Your task to perform on an android device: Add beats solo 3 to the cart on costco, then select checkout. Image 0: 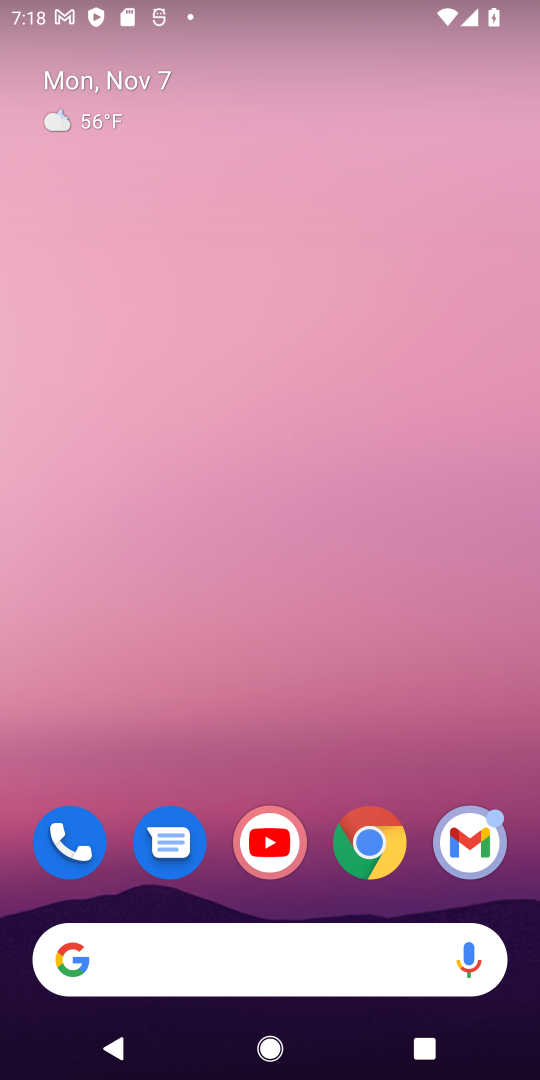
Step 0: click (379, 835)
Your task to perform on an android device: Add beats solo 3 to the cart on costco, then select checkout. Image 1: 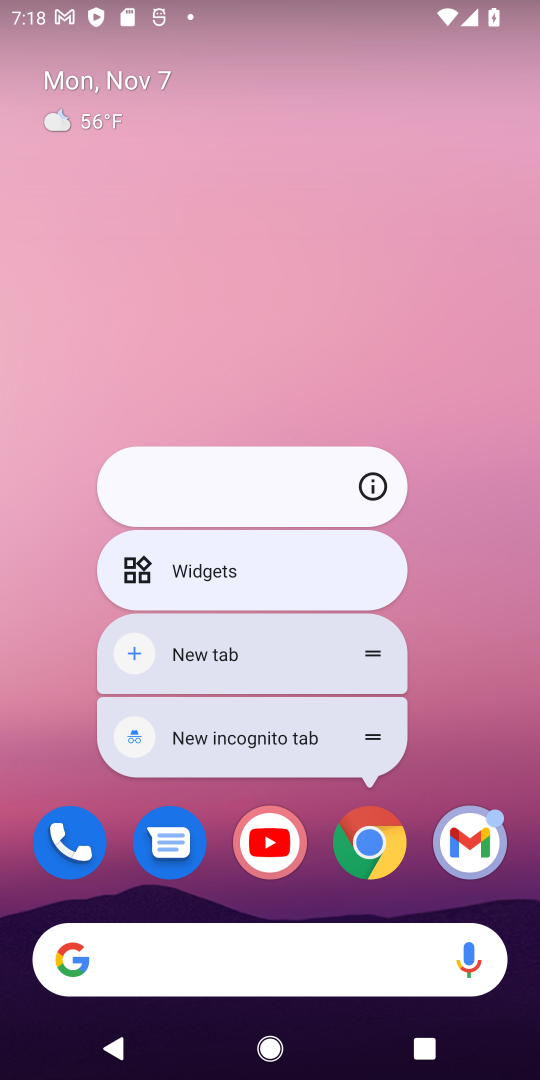
Step 1: click (375, 841)
Your task to perform on an android device: Add beats solo 3 to the cart on costco, then select checkout. Image 2: 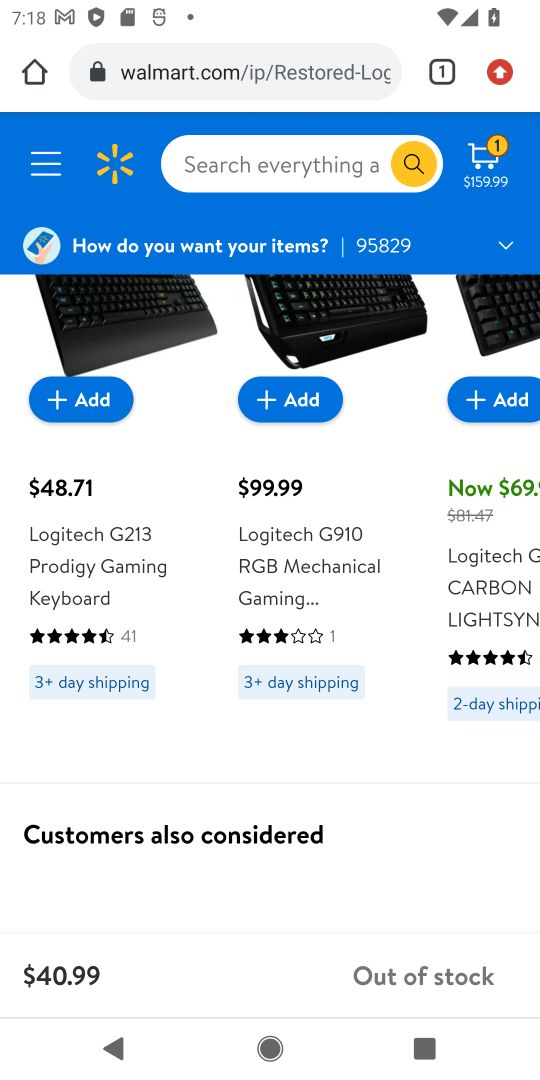
Step 2: click (223, 75)
Your task to perform on an android device: Add beats solo 3 to the cart on costco, then select checkout. Image 3: 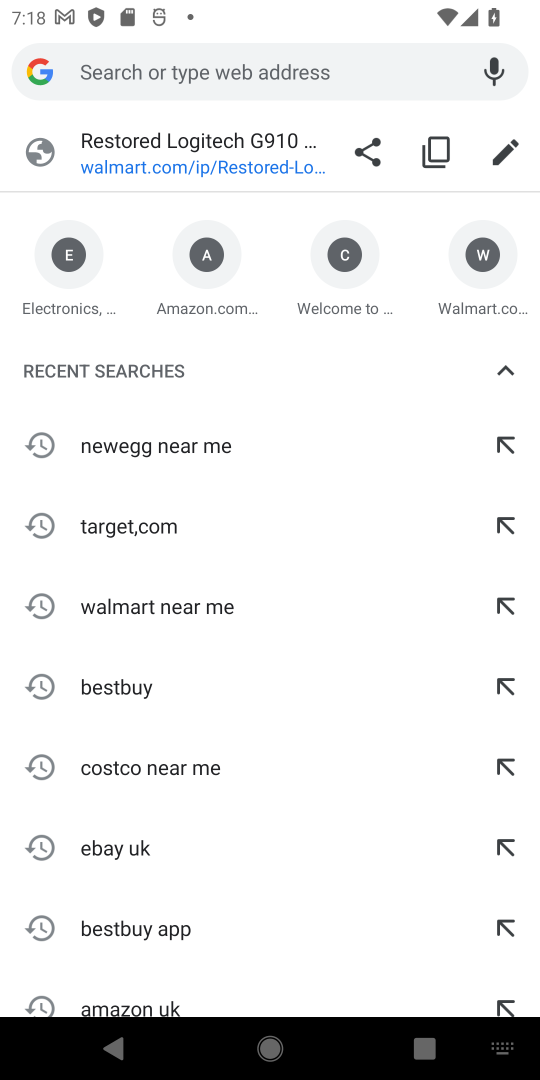
Step 3: type "costco"
Your task to perform on an android device: Add beats solo 3 to the cart on costco, then select checkout. Image 4: 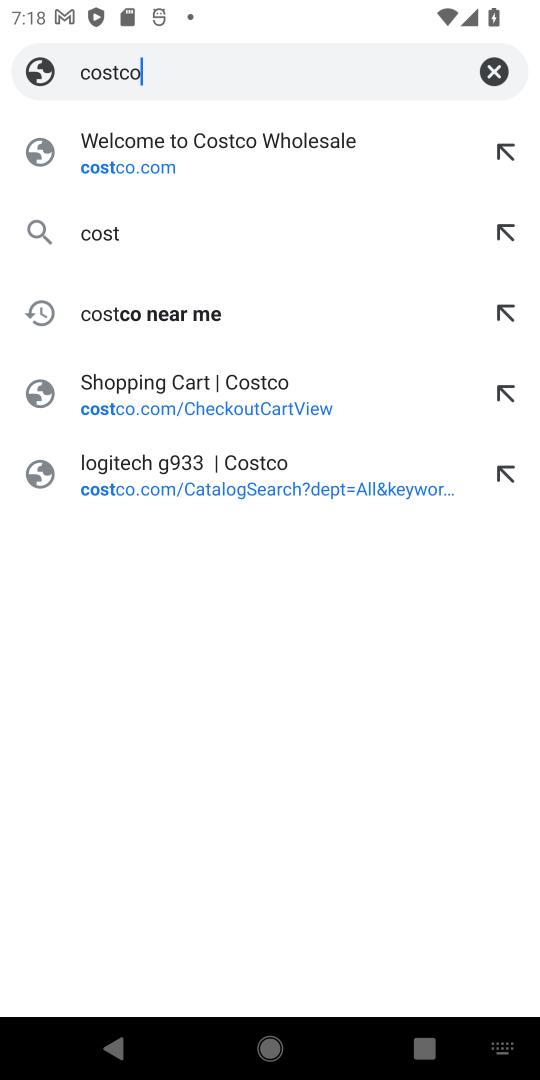
Step 4: press enter
Your task to perform on an android device: Add beats solo 3 to the cart on costco, then select checkout. Image 5: 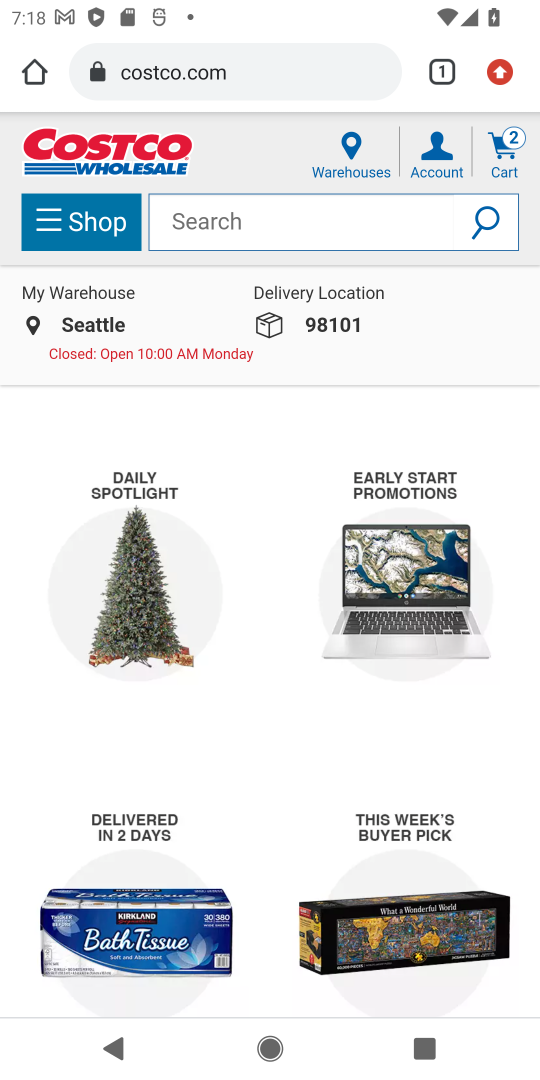
Step 5: click (278, 217)
Your task to perform on an android device: Add beats solo 3 to the cart on costco, then select checkout. Image 6: 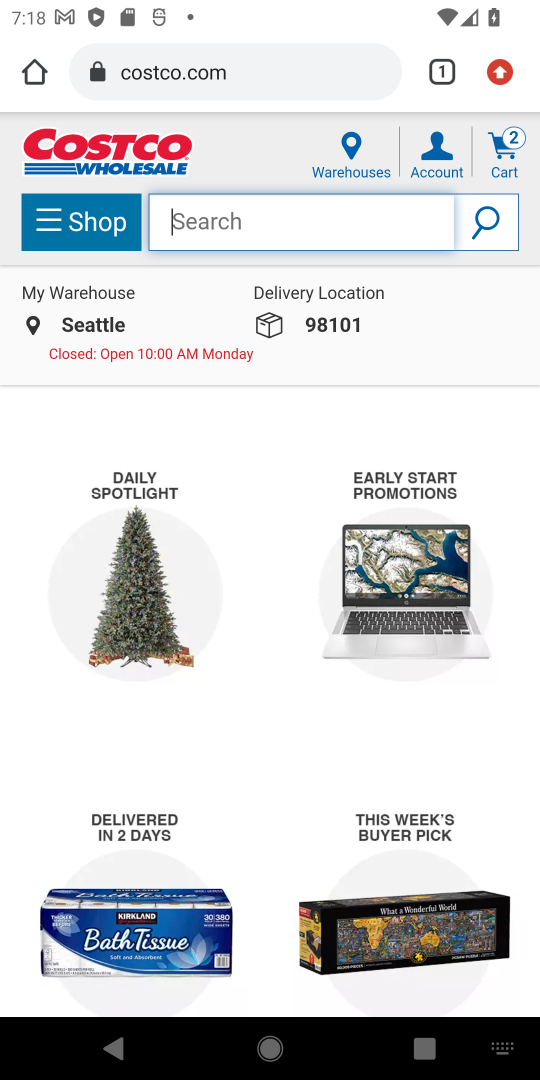
Step 6: type "beats solo 3"
Your task to perform on an android device: Add beats solo 3 to the cart on costco, then select checkout. Image 7: 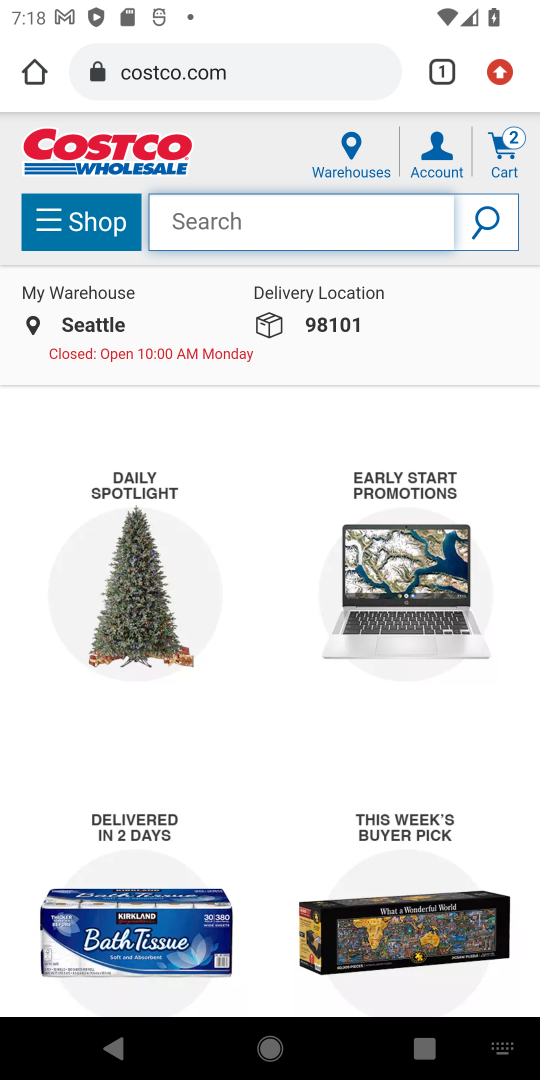
Step 7: press enter
Your task to perform on an android device: Add beats solo 3 to the cart on costco, then select checkout. Image 8: 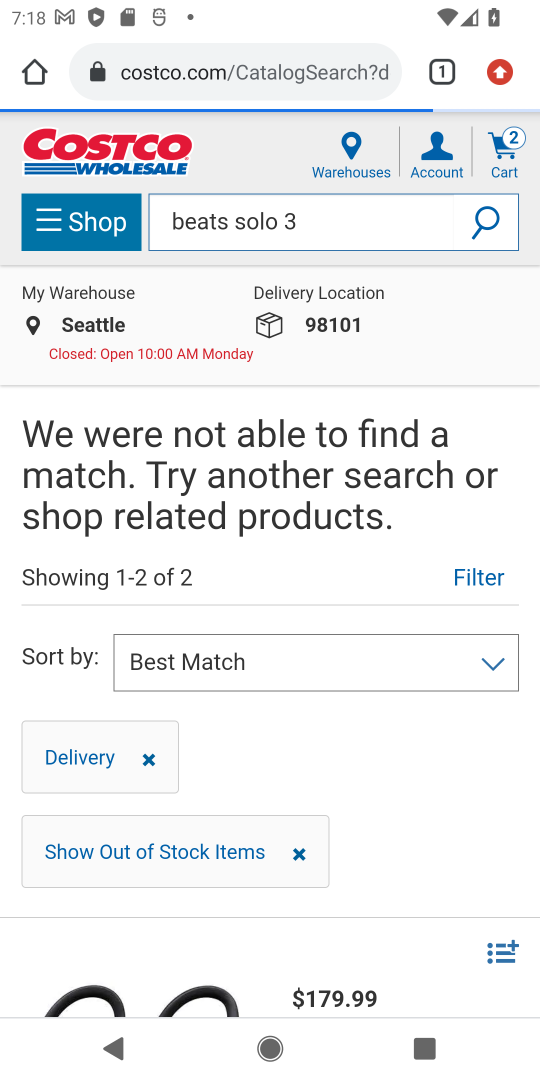
Step 8: task complete